Your task to perform on an android device: Add "apple airpods pro" to the cart on costco, then select checkout. Image 0: 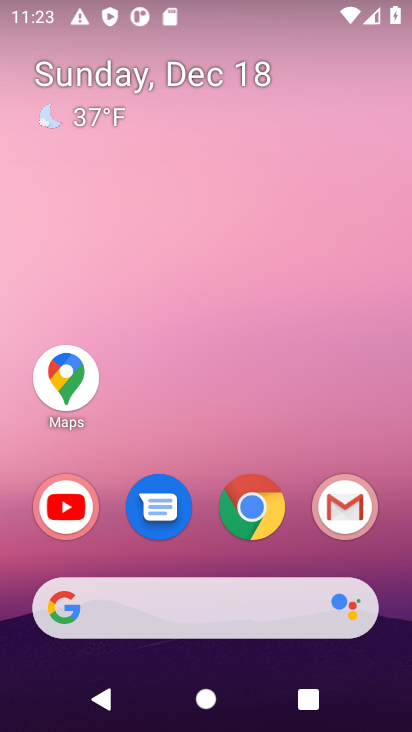
Step 0: click (252, 509)
Your task to perform on an android device: Add "apple airpods pro" to the cart on costco, then select checkout. Image 1: 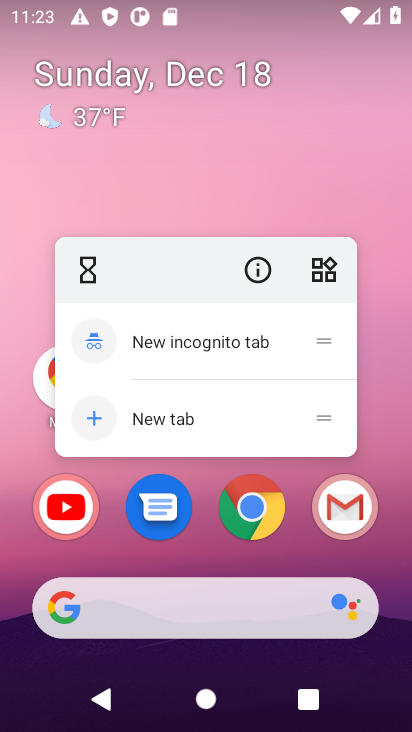
Step 1: click (252, 509)
Your task to perform on an android device: Add "apple airpods pro" to the cart on costco, then select checkout. Image 2: 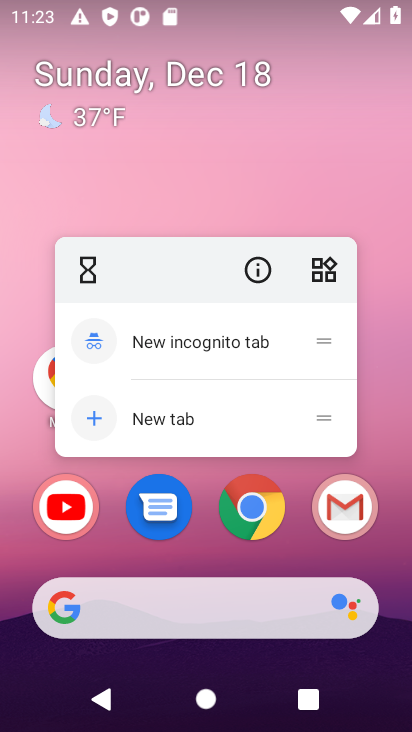
Step 2: click (252, 509)
Your task to perform on an android device: Add "apple airpods pro" to the cart on costco, then select checkout. Image 3: 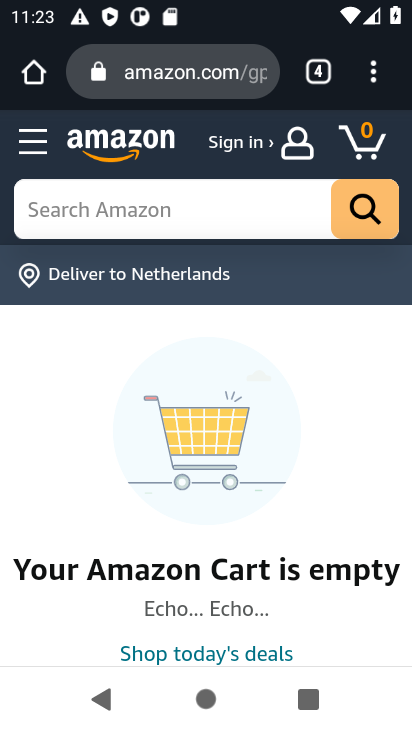
Step 3: click (155, 76)
Your task to perform on an android device: Add "apple airpods pro" to the cart on costco, then select checkout. Image 4: 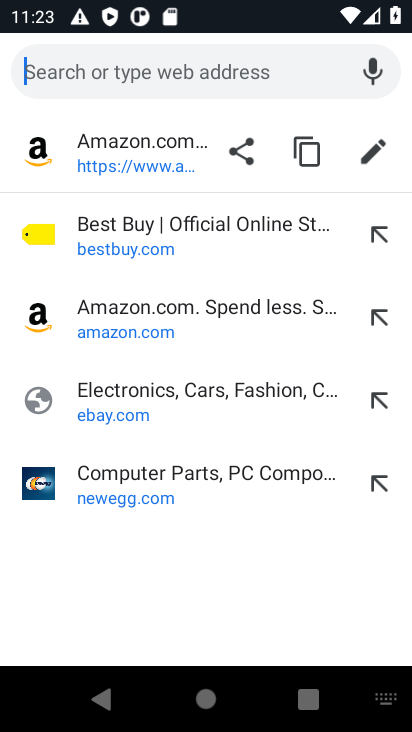
Step 4: type "costco.com"
Your task to perform on an android device: Add "apple airpods pro" to the cart on costco, then select checkout. Image 5: 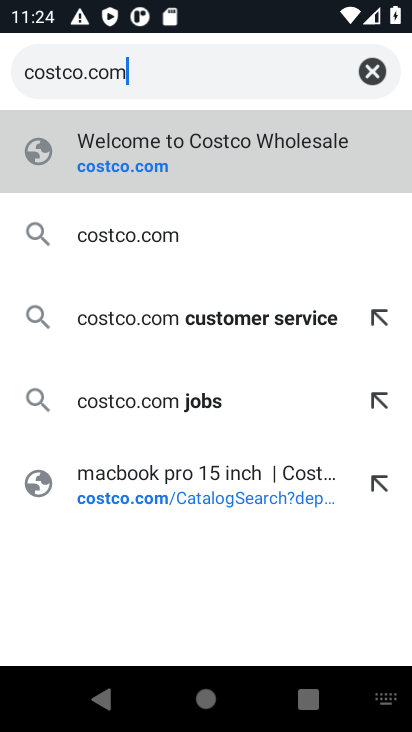
Step 5: click (153, 170)
Your task to perform on an android device: Add "apple airpods pro" to the cart on costco, then select checkout. Image 6: 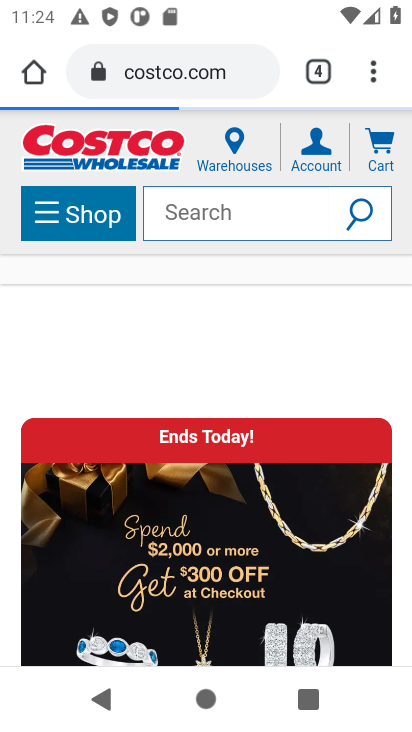
Step 6: click (208, 225)
Your task to perform on an android device: Add "apple airpods pro" to the cart on costco, then select checkout. Image 7: 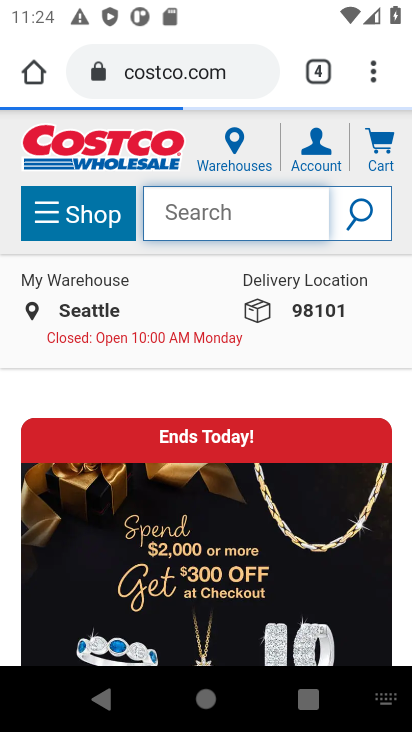
Step 7: type "apple airpods pro"
Your task to perform on an android device: Add "apple airpods pro" to the cart on costco, then select checkout. Image 8: 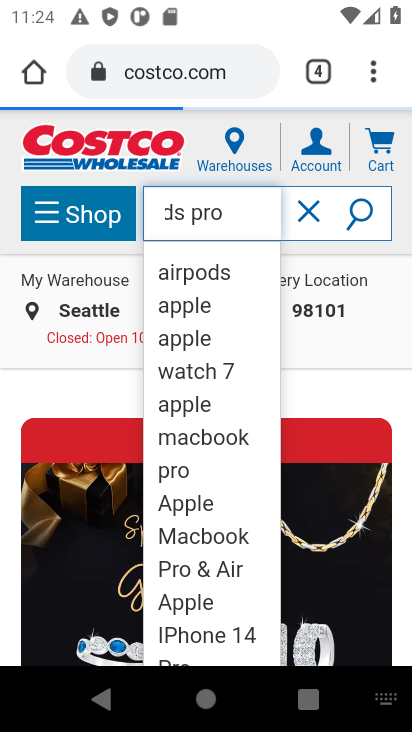
Step 8: click (367, 212)
Your task to perform on an android device: Add "apple airpods pro" to the cart on costco, then select checkout. Image 9: 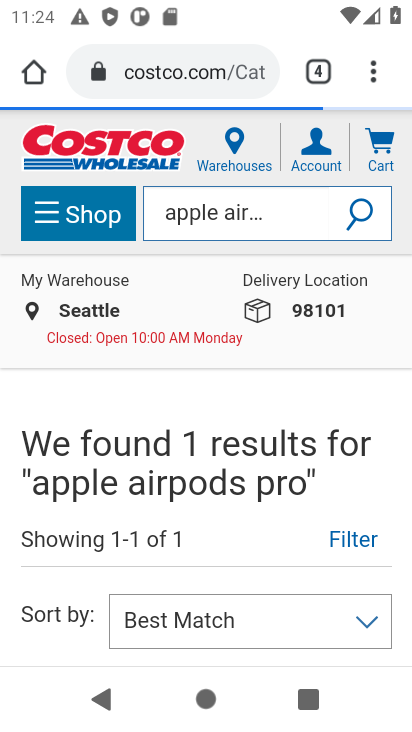
Step 9: drag from (278, 460) to (243, 273)
Your task to perform on an android device: Add "apple airpods pro" to the cart on costco, then select checkout. Image 10: 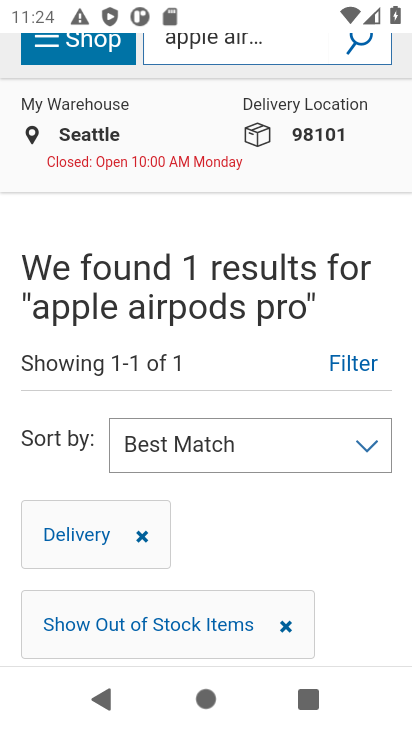
Step 10: drag from (207, 471) to (195, 184)
Your task to perform on an android device: Add "apple airpods pro" to the cart on costco, then select checkout. Image 11: 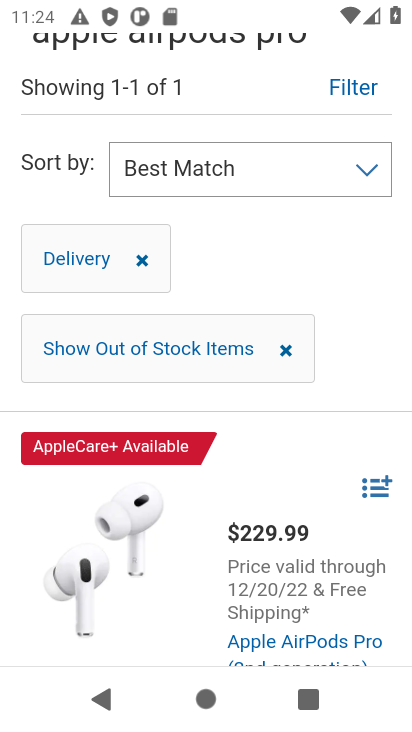
Step 11: drag from (197, 483) to (197, 257)
Your task to perform on an android device: Add "apple airpods pro" to the cart on costco, then select checkout. Image 12: 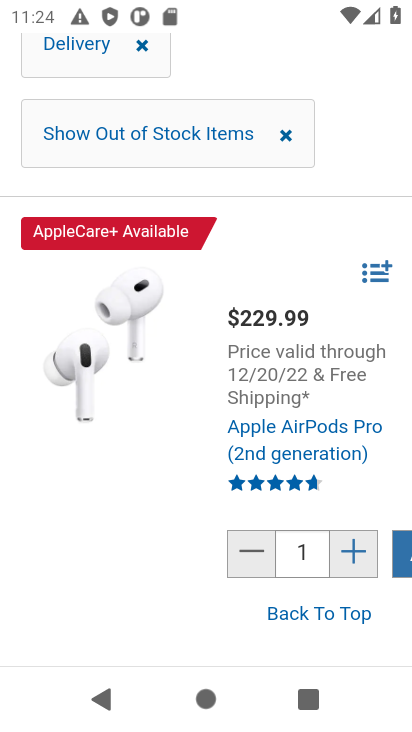
Step 12: drag from (232, 500) to (239, 349)
Your task to perform on an android device: Add "apple airpods pro" to the cart on costco, then select checkout. Image 13: 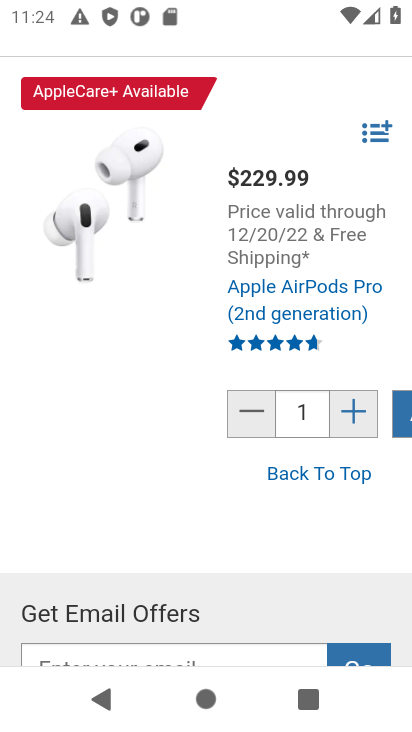
Step 13: click (406, 420)
Your task to perform on an android device: Add "apple airpods pro" to the cart on costco, then select checkout. Image 14: 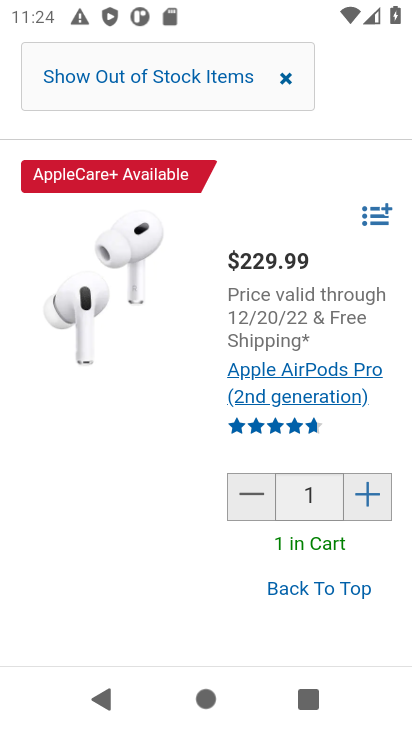
Step 14: drag from (193, 374) to (16, 381)
Your task to perform on an android device: Add "apple airpods pro" to the cart on costco, then select checkout. Image 15: 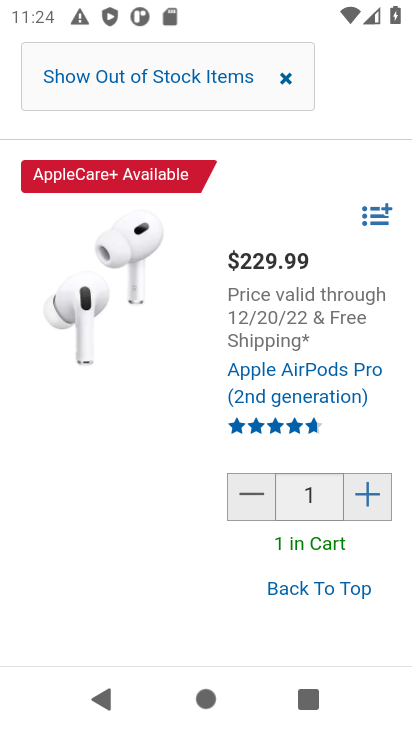
Step 15: drag from (191, 185) to (166, 651)
Your task to perform on an android device: Add "apple airpods pro" to the cart on costco, then select checkout. Image 16: 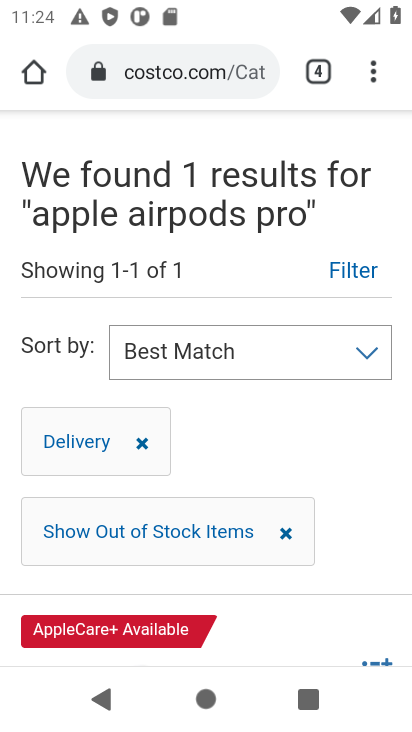
Step 16: drag from (340, 185) to (298, 486)
Your task to perform on an android device: Add "apple airpods pro" to the cart on costco, then select checkout. Image 17: 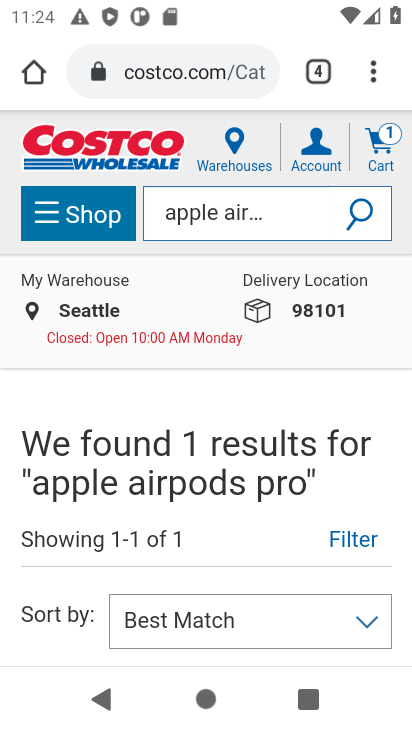
Step 17: click (382, 154)
Your task to perform on an android device: Add "apple airpods pro" to the cart on costco, then select checkout. Image 18: 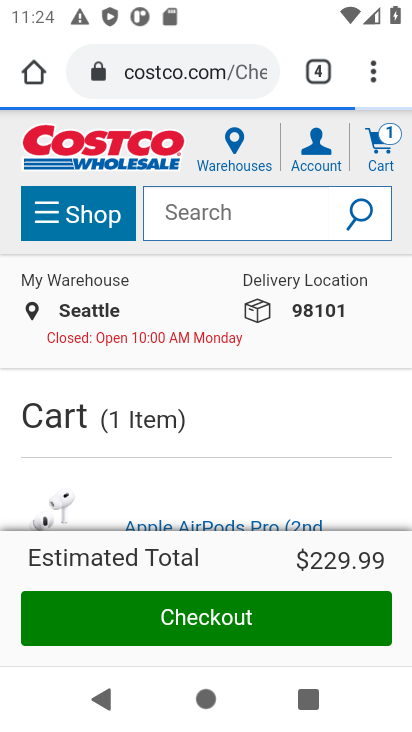
Step 18: click (201, 630)
Your task to perform on an android device: Add "apple airpods pro" to the cart on costco, then select checkout. Image 19: 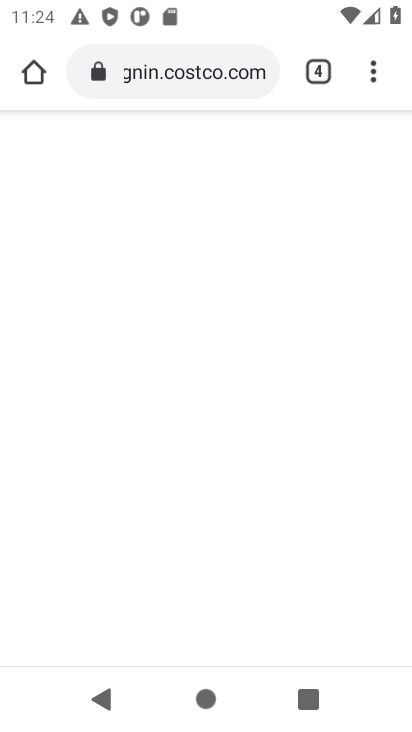
Step 19: click (201, 625)
Your task to perform on an android device: Add "apple airpods pro" to the cart on costco, then select checkout. Image 20: 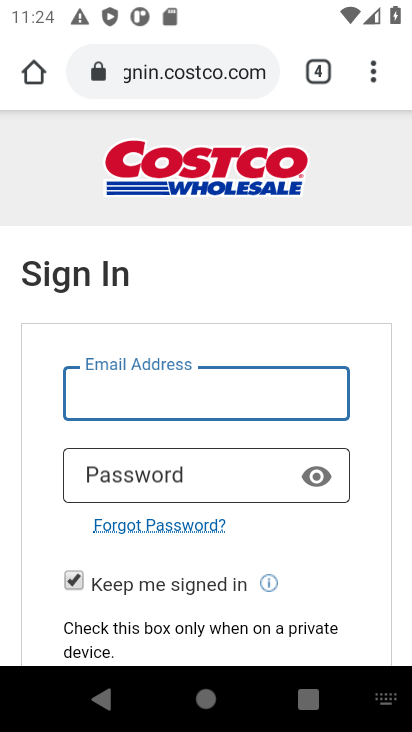
Step 20: task complete